Your task to perform on an android device: Set the phone to "Do not disturb". Image 0: 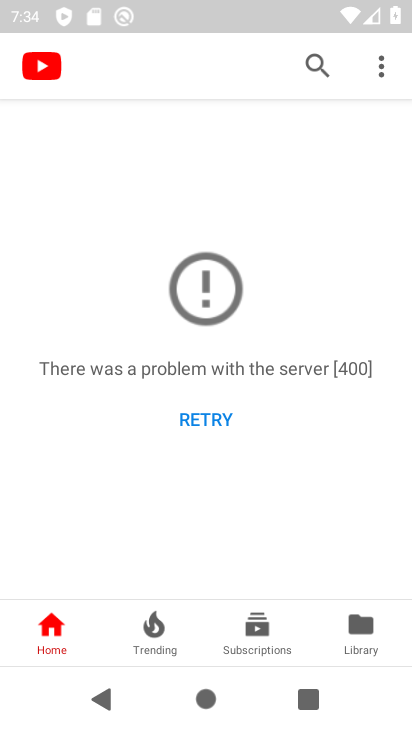
Step 0: press home button
Your task to perform on an android device: Set the phone to "Do not disturb". Image 1: 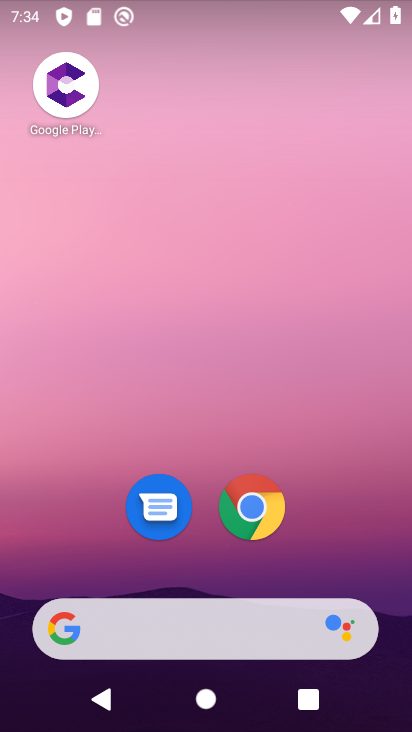
Step 1: drag from (114, 664) to (308, 29)
Your task to perform on an android device: Set the phone to "Do not disturb". Image 2: 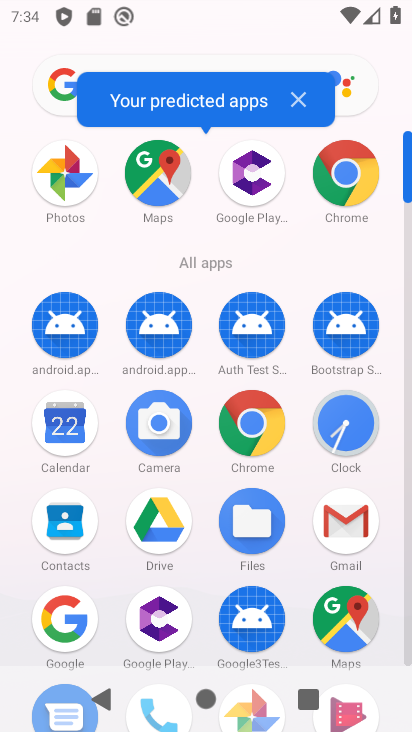
Step 2: drag from (272, 541) to (242, 25)
Your task to perform on an android device: Set the phone to "Do not disturb". Image 3: 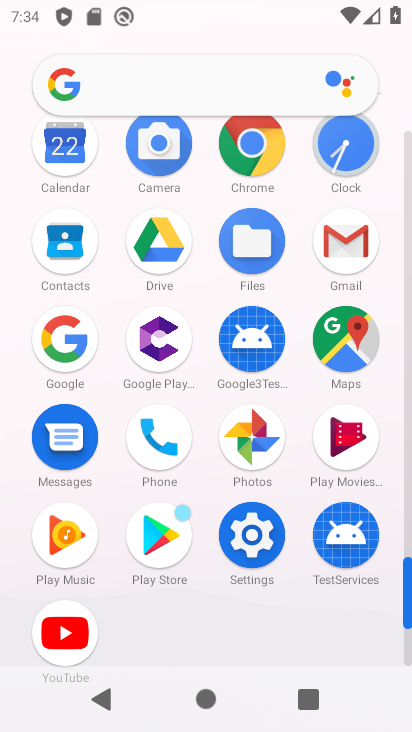
Step 3: drag from (71, 461) to (150, 85)
Your task to perform on an android device: Set the phone to "Do not disturb". Image 4: 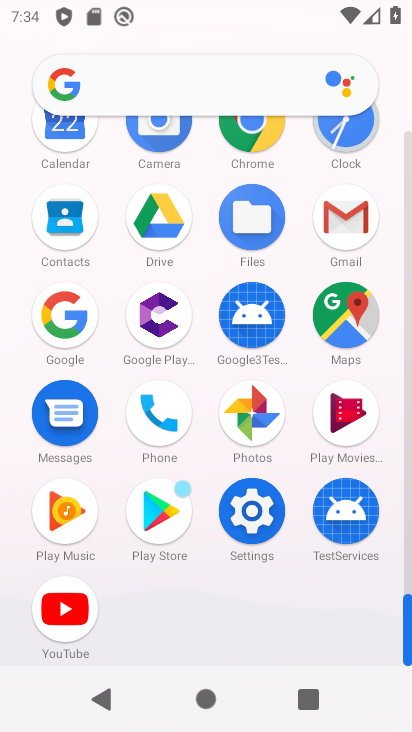
Step 4: click (268, 513)
Your task to perform on an android device: Set the phone to "Do not disturb". Image 5: 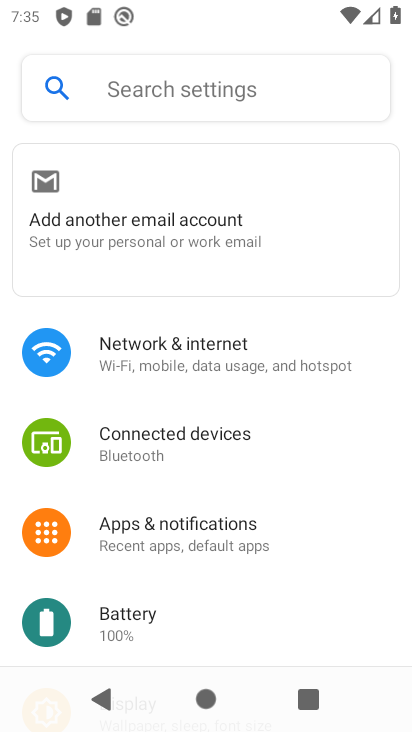
Step 5: drag from (278, 381) to (299, 15)
Your task to perform on an android device: Set the phone to "Do not disturb". Image 6: 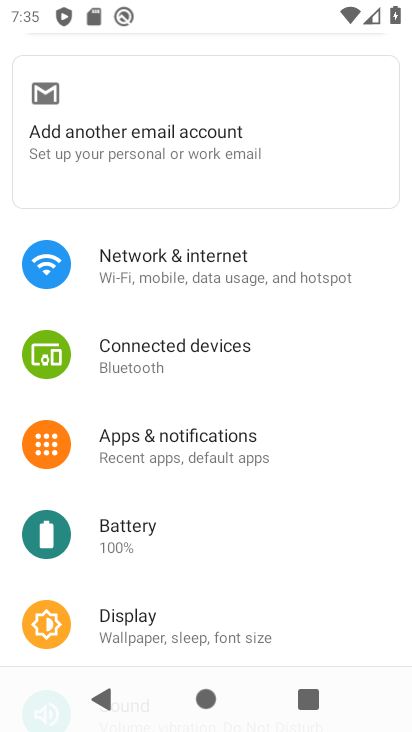
Step 6: drag from (320, 578) to (216, 55)
Your task to perform on an android device: Set the phone to "Do not disturb". Image 7: 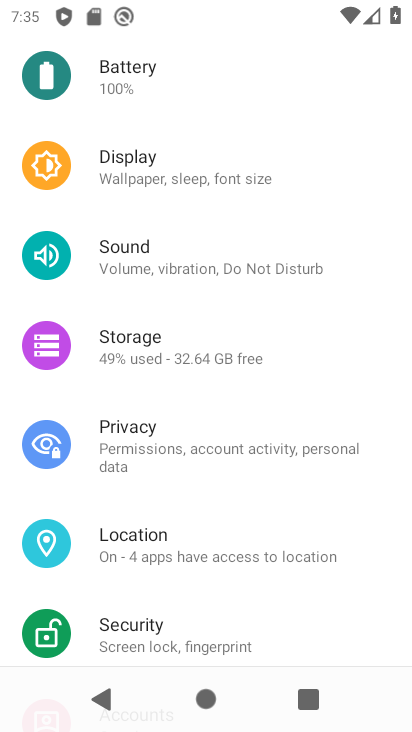
Step 7: click (317, 253)
Your task to perform on an android device: Set the phone to "Do not disturb". Image 8: 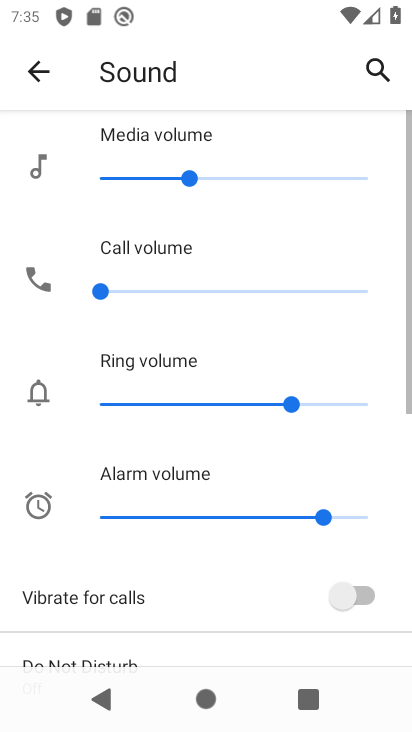
Step 8: drag from (231, 559) to (135, 33)
Your task to perform on an android device: Set the phone to "Do not disturb". Image 9: 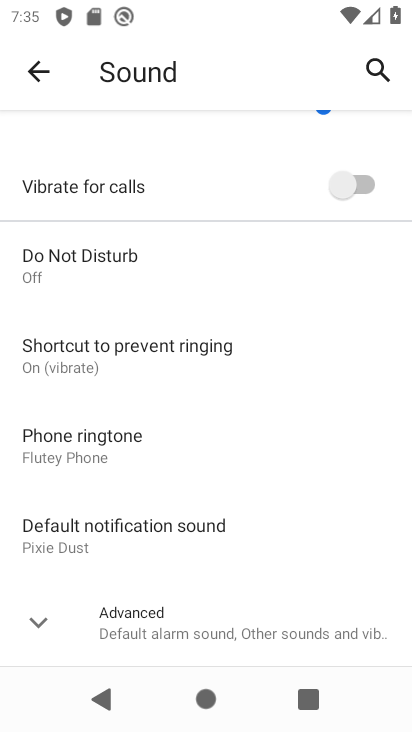
Step 9: click (151, 255)
Your task to perform on an android device: Set the phone to "Do not disturb". Image 10: 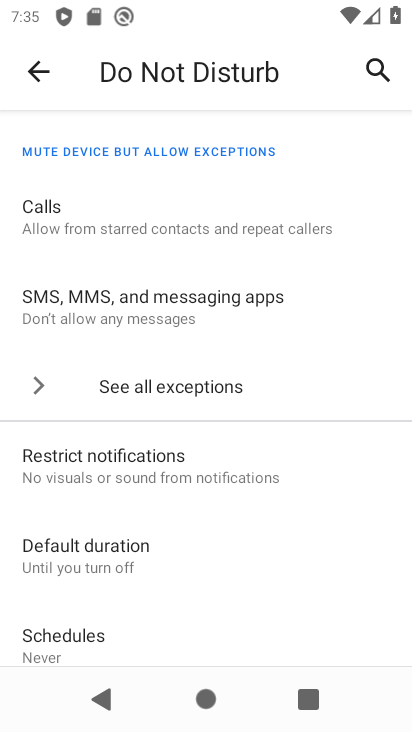
Step 10: drag from (264, 494) to (311, 71)
Your task to perform on an android device: Set the phone to "Do not disturb". Image 11: 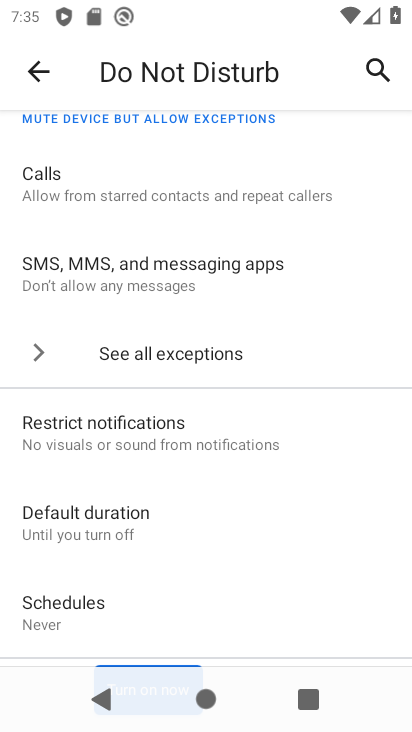
Step 11: drag from (137, 618) to (83, 79)
Your task to perform on an android device: Set the phone to "Do not disturb". Image 12: 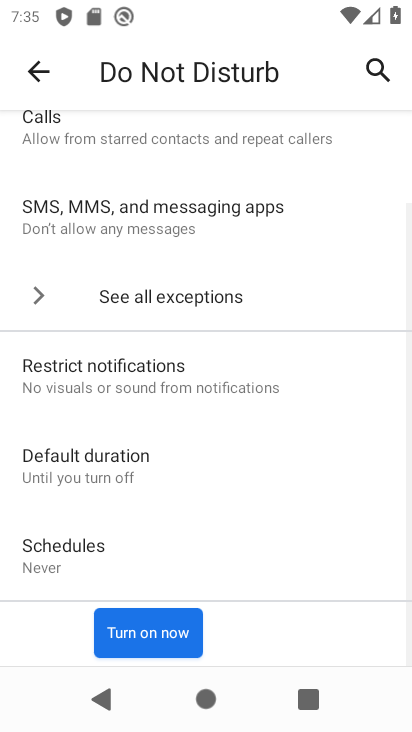
Step 12: click (147, 637)
Your task to perform on an android device: Set the phone to "Do not disturb". Image 13: 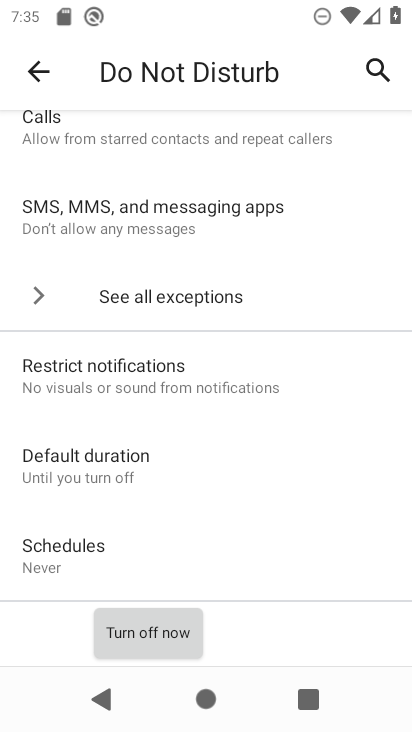
Step 13: task complete